Your task to perform on an android device: Open Google Chrome and click the shortcut for Amazon.com Image 0: 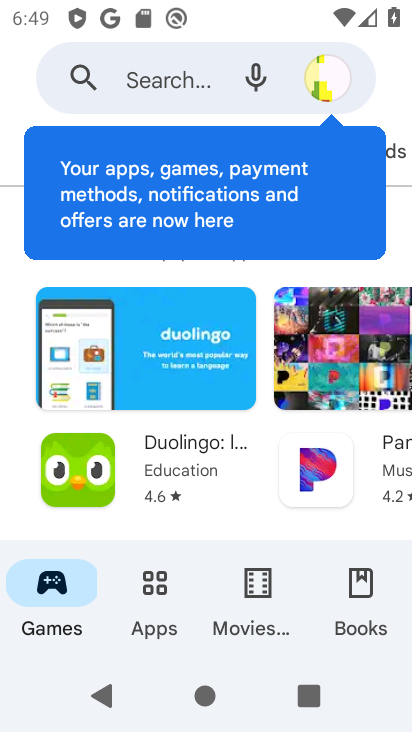
Step 0: press home button
Your task to perform on an android device: Open Google Chrome and click the shortcut for Amazon.com Image 1: 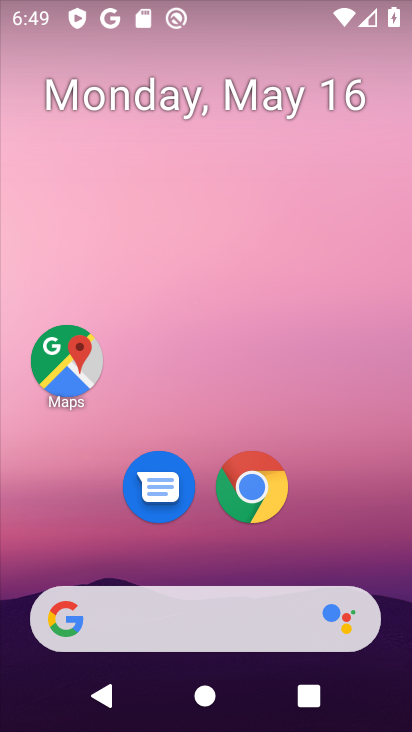
Step 1: click (281, 472)
Your task to perform on an android device: Open Google Chrome and click the shortcut for Amazon.com Image 2: 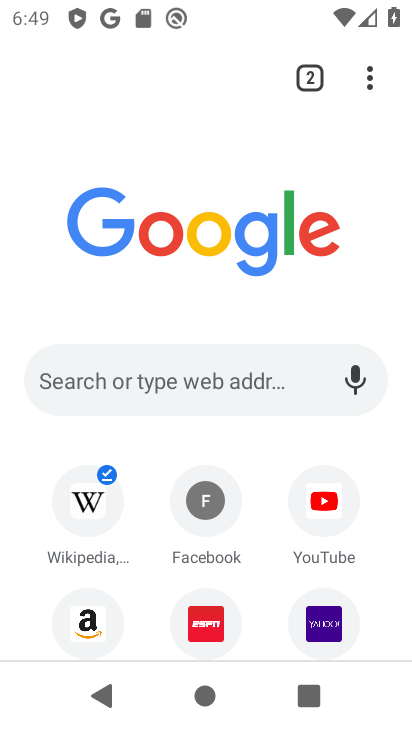
Step 2: click (90, 630)
Your task to perform on an android device: Open Google Chrome and click the shortcut for Amazon.com Image 3: 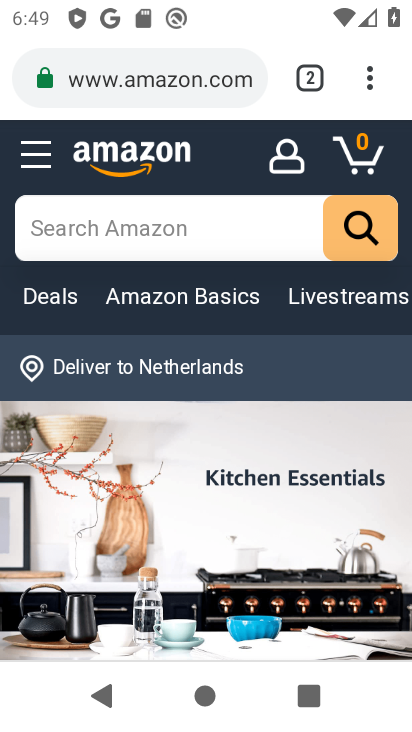
Step 3: task complete